Your task to perform on an android device: turn on sleep mode Image 0: 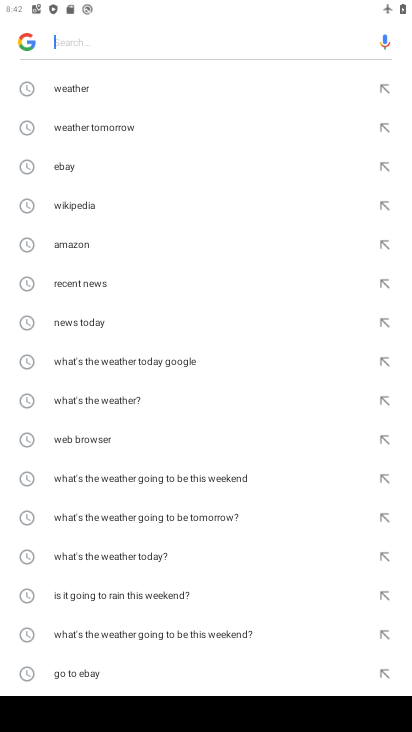
Step 0: press home button
Your task to perform on an android device: turn on sleep mode Image 1: 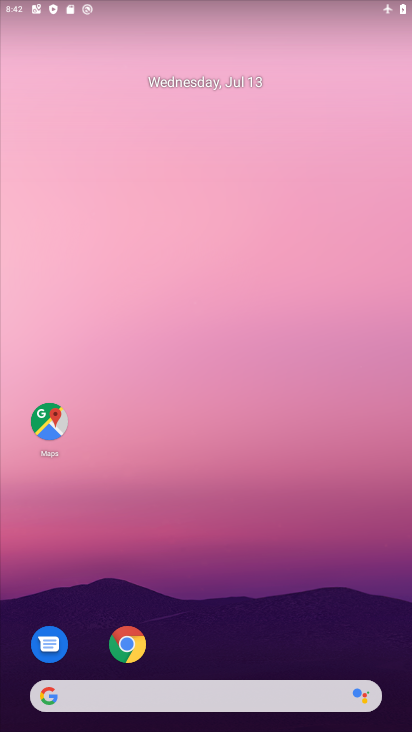
Step 1: drag from (225, 712) to (215, 122)
Your task to perform on an android device: turn on sleep mode Image 2: 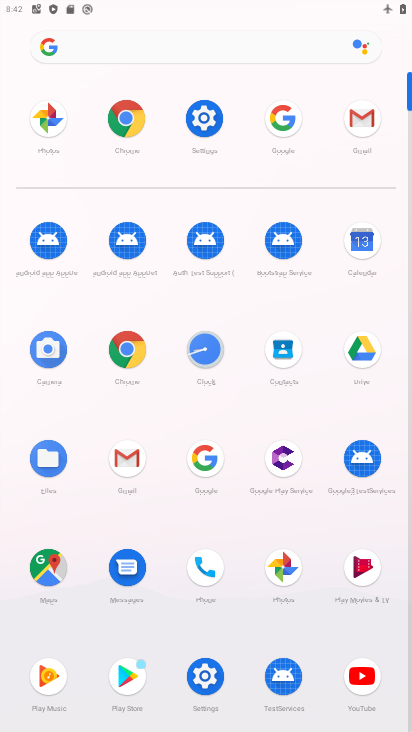
Step 2: click (207, 116)
Your task to perform on an android device: turn on sleep mode Image 3: 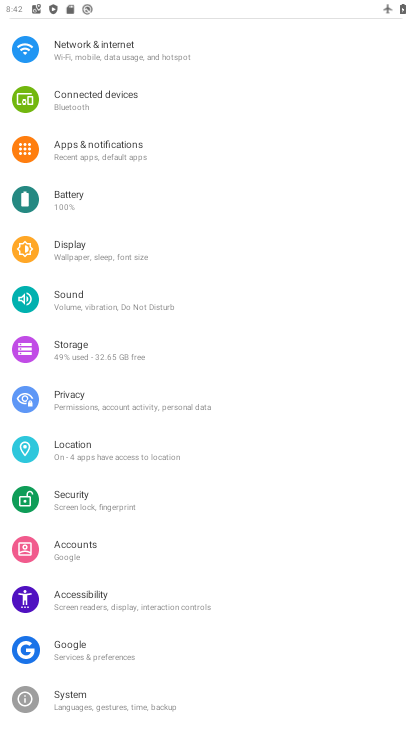
Step 3: click (100, 48)
Your task to perform on an android device: turn on sleep mode Image 4: 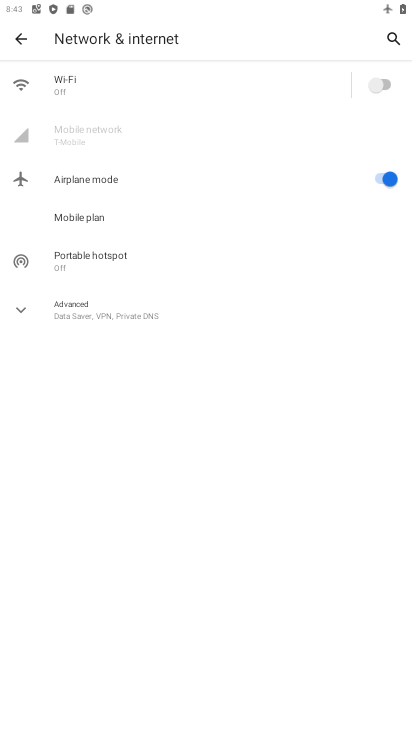
Step 4: click (25, 37)
Your task to perform on an android device: turn on sleep mode Image 5: 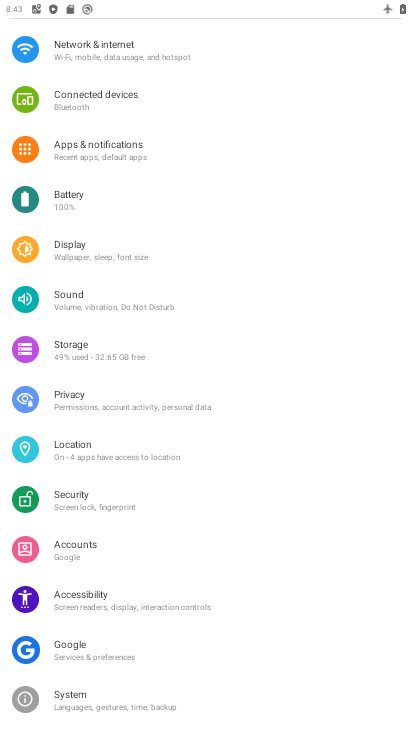
Step 5: click (114, 250)
Your task to perform on an android device: turn on sleep mode Image 6: 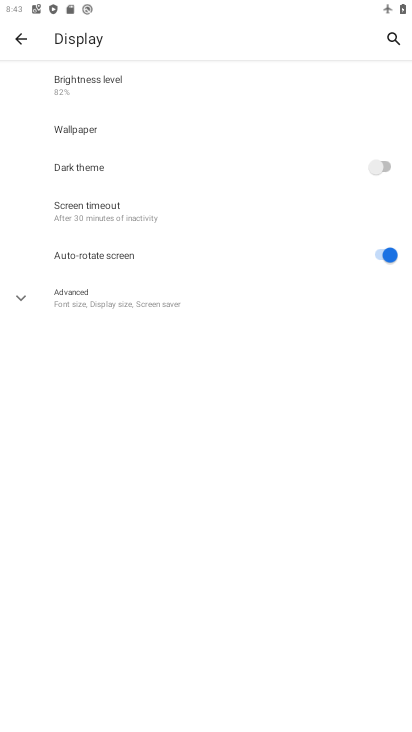
Step 6: click (25, 40)
Your task to perform on an android device: turn on sleep mode Image 7: 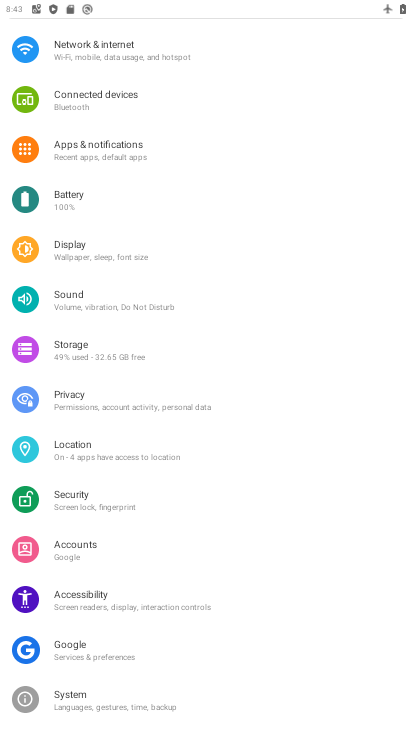
Step 7: task complete